Your task to perform on an android device: delete browsing data in the chrome app Image 0: 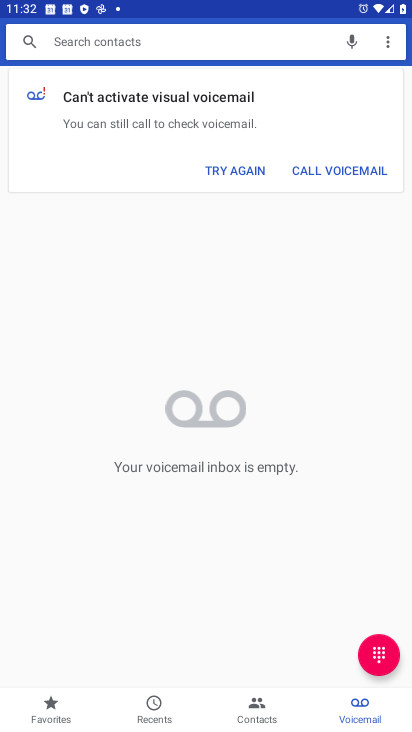
Step 0: drag from (109, 590) to (111, 306)
Your task to perform on an android device: delete browsing data in the chrome app Image 1: 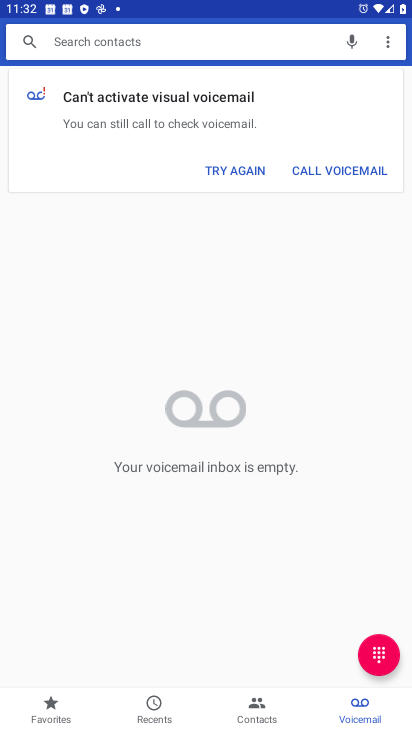
Step 1: press home button
Your task to perform on an android device: delete browsing data in the chrome app Image 2: 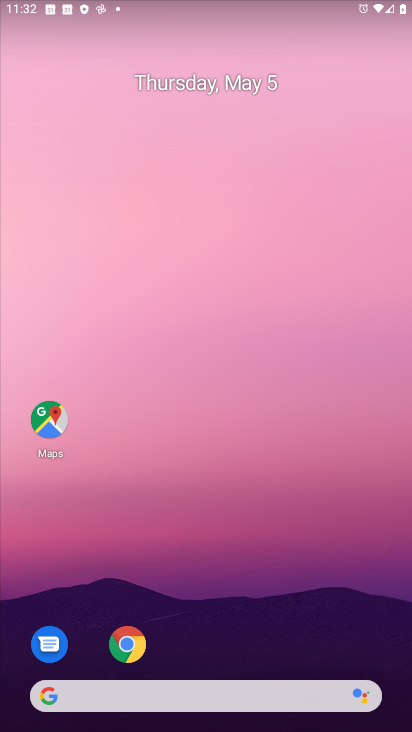
Step 2: drag from (176, 666) to (220, 141)
Your task to perform on an android device: delete browsing data in the chrome app Image 3: 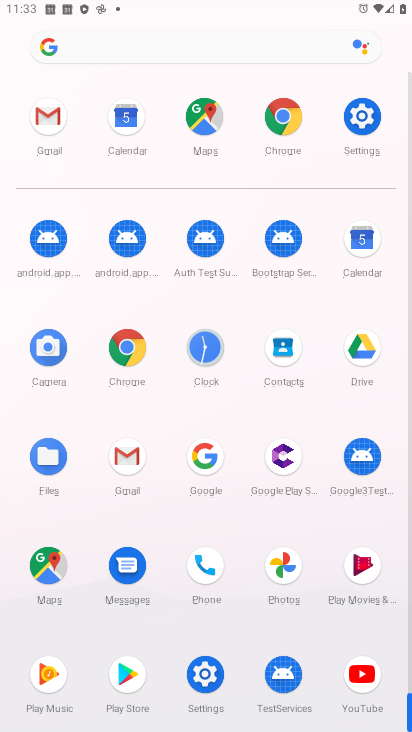
Step 3: click (283, 128)
Your task to perform on an android device: delete browsing data in the chrome app Image 4: 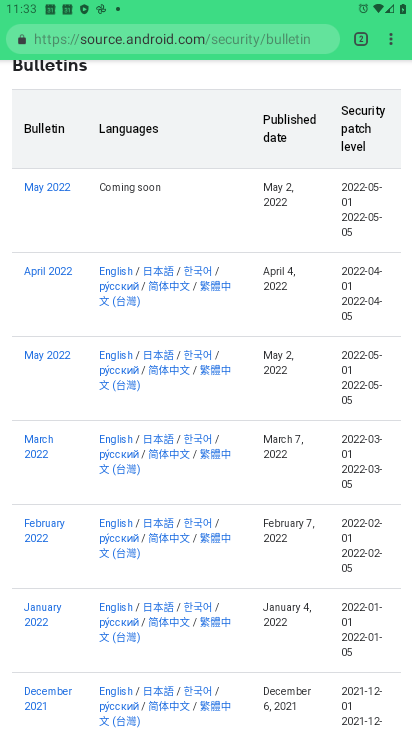
Step 4: drag from (239, 258) to (266, 677)
Your task to perform on an android device: delete browsing data in the chrome app Image 5: 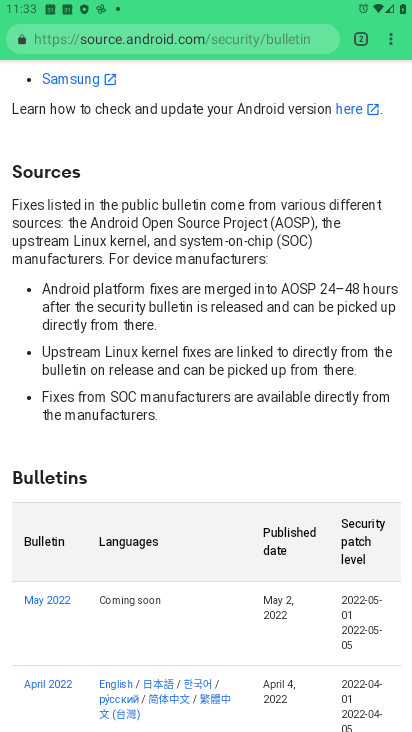
Step 5: drag from (207, 193) to (240, 665)
Your task to perform on an android device: delete browsing data in the chrome app Image 6: 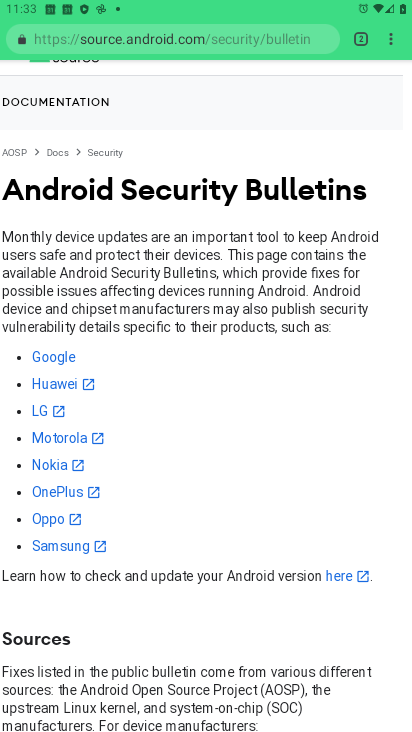
Step 6: drag from (172, 674) to (279, 116)
Your task to perform on an android device: delete browsing data in the chrome app Image 7: 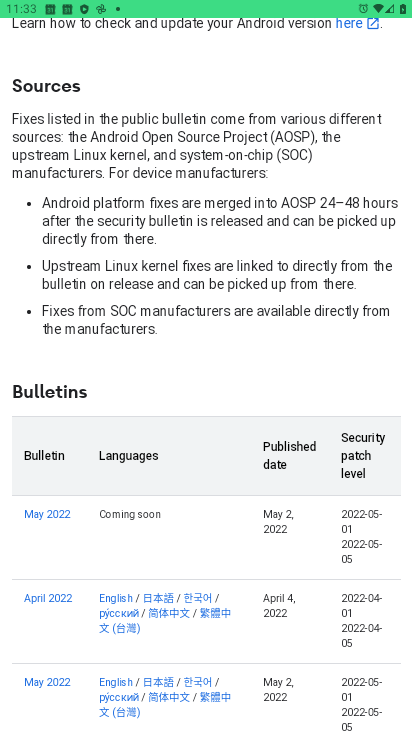
Step 7: drag from (195, 236) to (322, 719)
Your task to perform on an android device: delete browsing data in the chrome app Image 8: 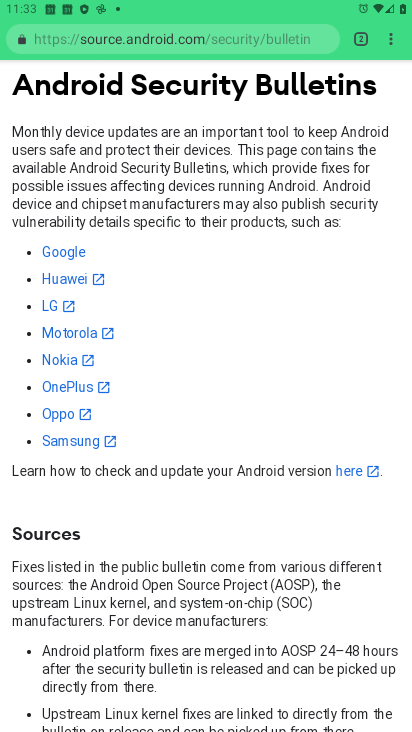
Step 8: drag from (187, 201) to (270, 634)
Your task to perform on an android device: delete browsing data in the chrome app Image 9: 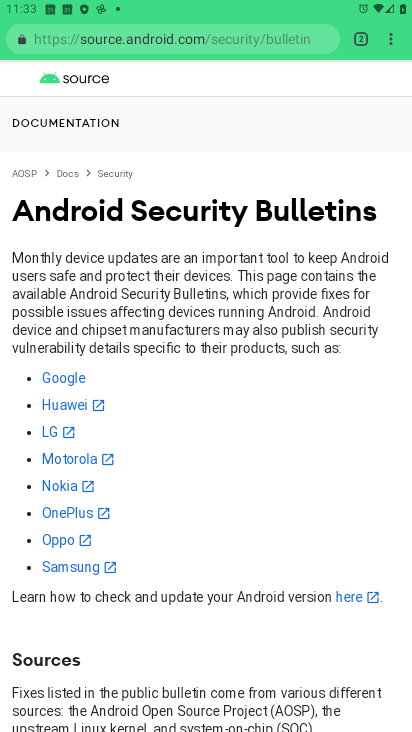
Step 9: drag from (152, 278) to (240, 685)
Your task to perform on an android device: delete browsing data in the chrome app Image 10: 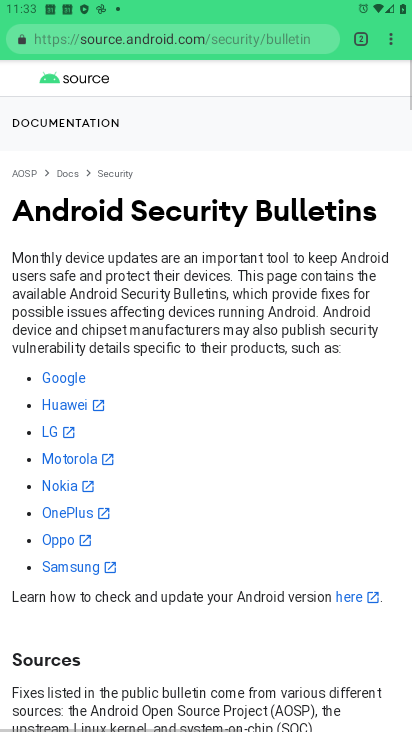
Step 10: drag from (388, 46) to (293, 145)
Your task to perform on an android device: delete browsing data in the chrome app Image 11: 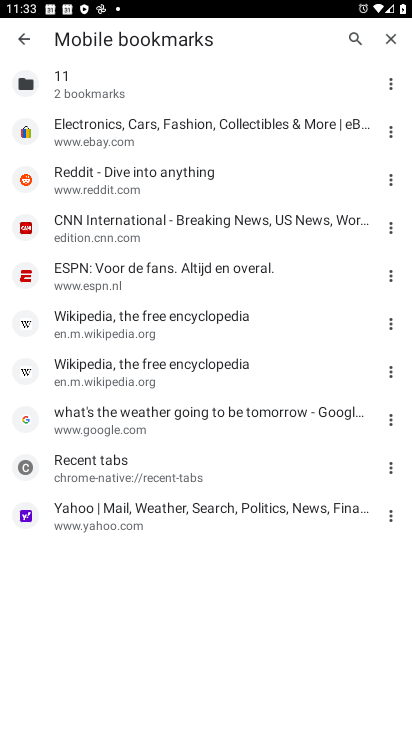
Step 11: click (388, 44)
Your task to perform on an android device: delete browsing data in the chrome app Image 12: 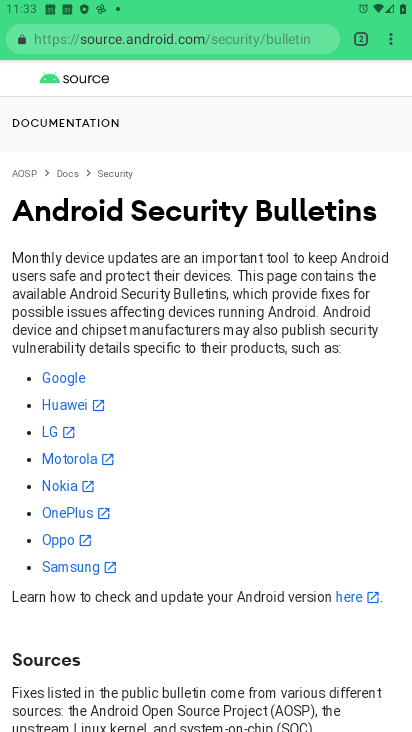
Step 12: click (390, 40)
Your task to perform on an android device: delete browsing data in the chrome app Image 13: 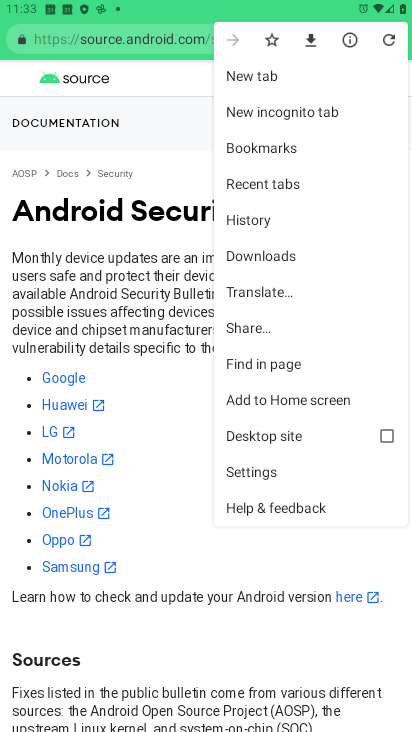
Step 13: click (297, 223)
Your task to perform on an android device: delete browsing data in the chrome app Image 14: 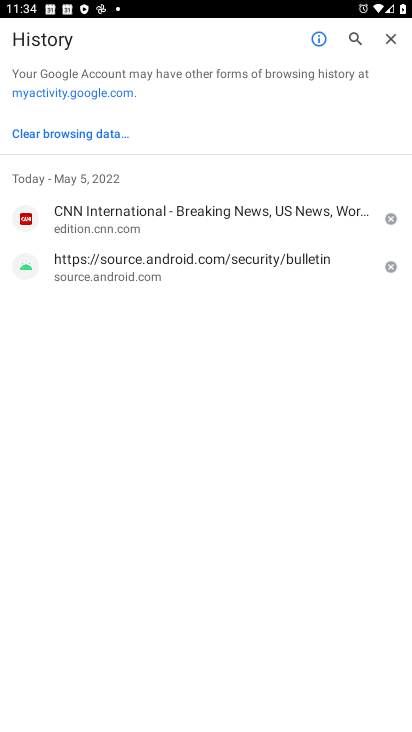
Step 14: click (61, 137)
Your task to perform on an android device: delete browsing data in the chrome app Image 15: 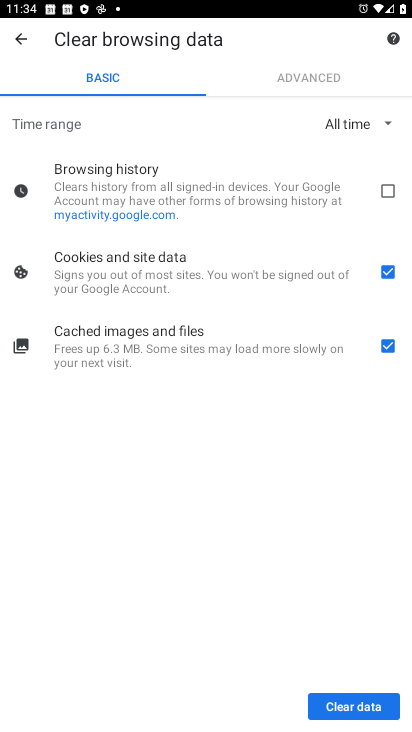
Step 15: click (353, 697)
Your task to perform on an android device: delete browsing data in the chrome app Image 16: 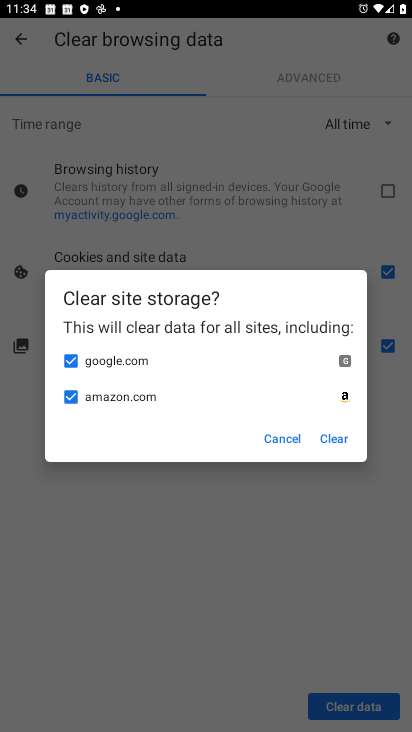
Step 16: click (335, 438)
Your task to perform on an android device: delete browsing data in the chrome app Image 17: 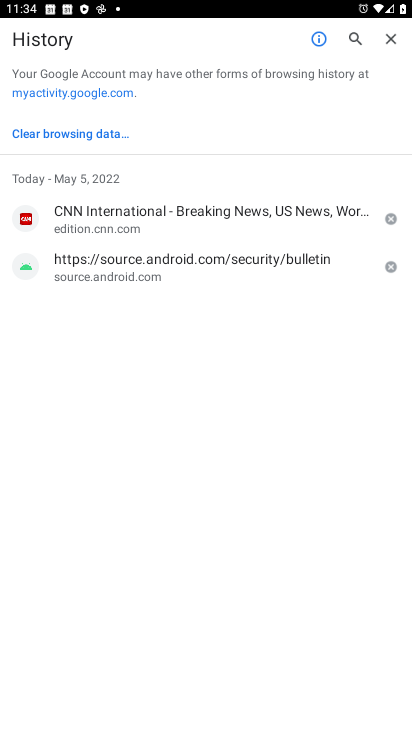
Step 17: click (49, 130)
Your task to perform on an android device: delete browsing data in the chrome app Image 18: 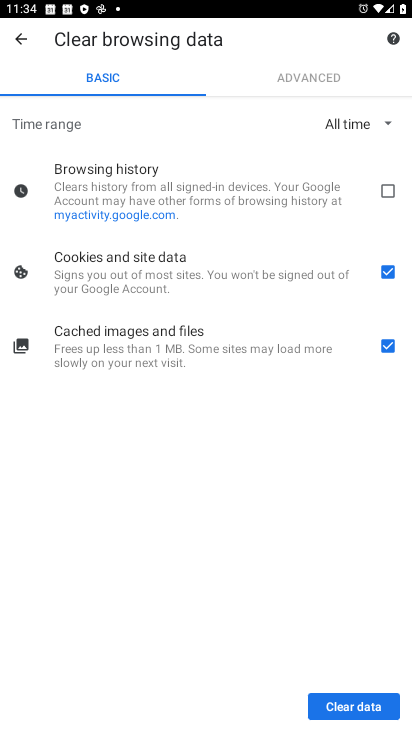
Step 18: click (380, 190)
Your task to perform on an android device: delete browsing data in the chrome app Image 19: 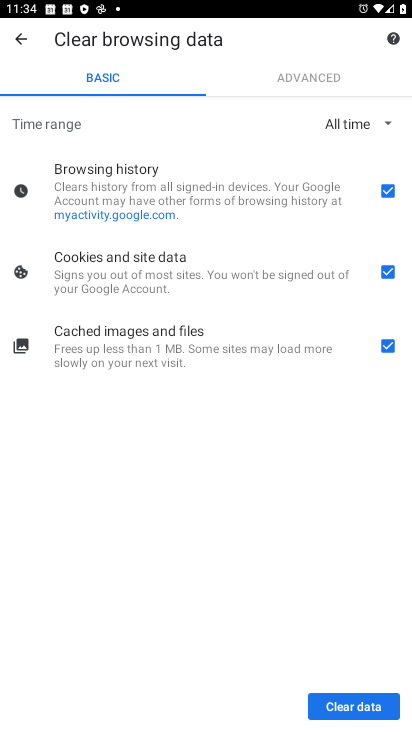
Step 19: click (353, 718)
Your task to perform on an android device: delete browsing data in the chrome app Image 20: 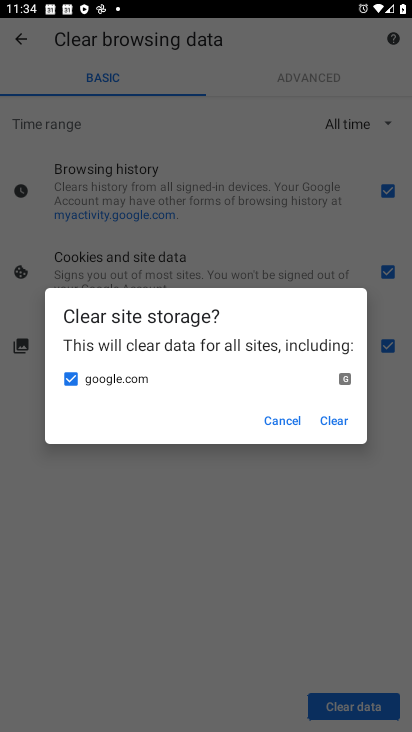
Step 20: click (339, 417)
Your task to perform on an android device: delete browsing data in the chrome app Image 21: 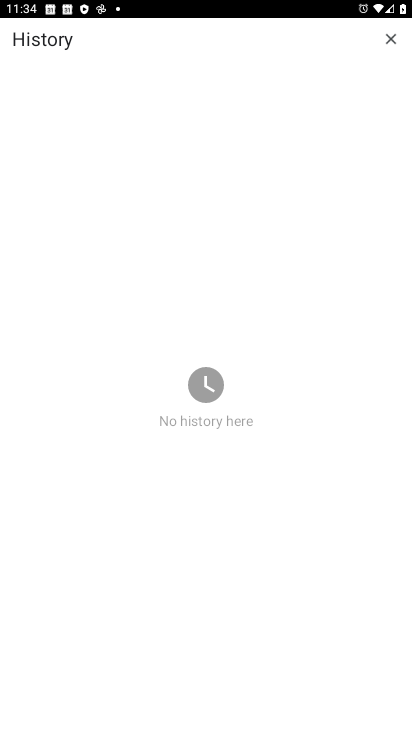
Step 21: drag from (276, 605) to (266, 270)
Your task to perform on an android device: delete browsing data in the chrome app Image 22: 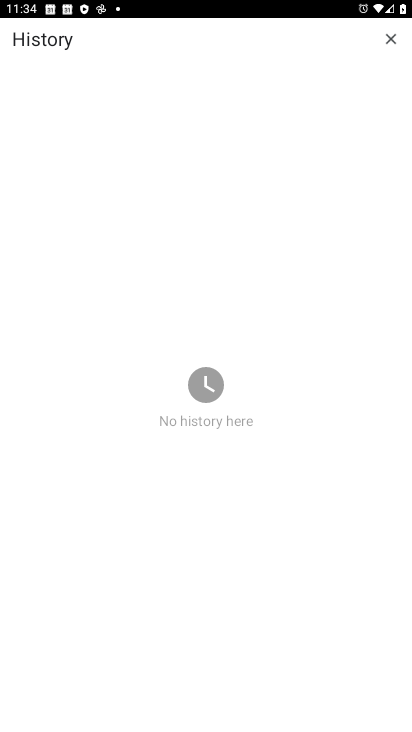
Step 22: click (387, 37)
Your task to perform on an android device: delete browsing data in the chrome app Image 23: 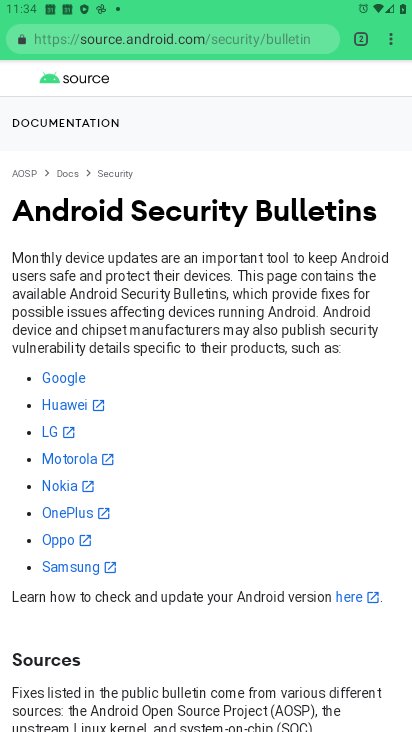
Step 23: task complete